Your task to perform on an android device: Go to ESPN.com Image 0: 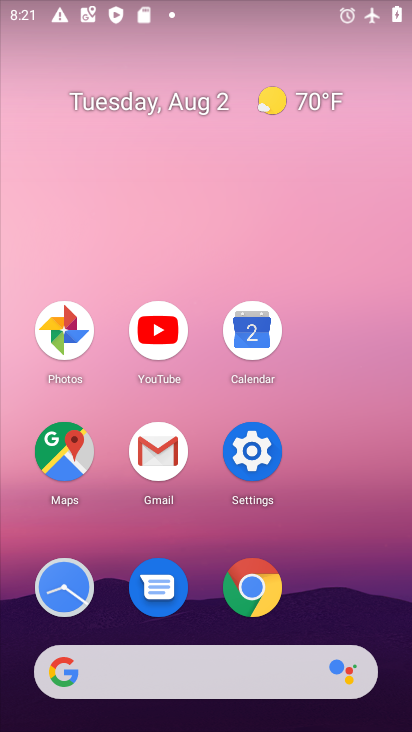
Step 0: click (248, 585)
Your task to perform on an android device: Go to ESPN.com Image 1: 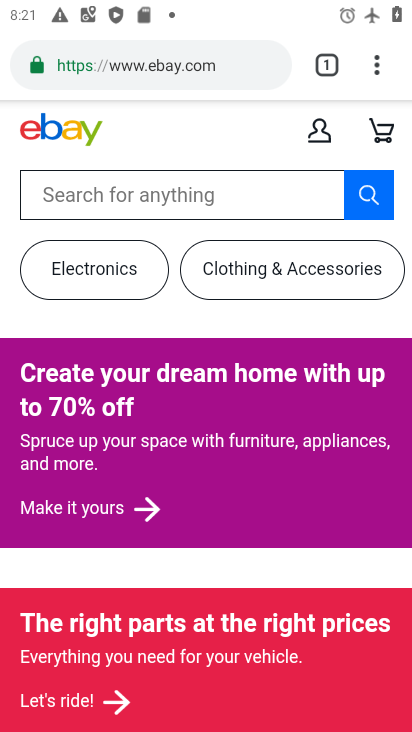
Step 1: click (373, 61)
Your task to perform on an android device: Go to ESPN.com Image 2: 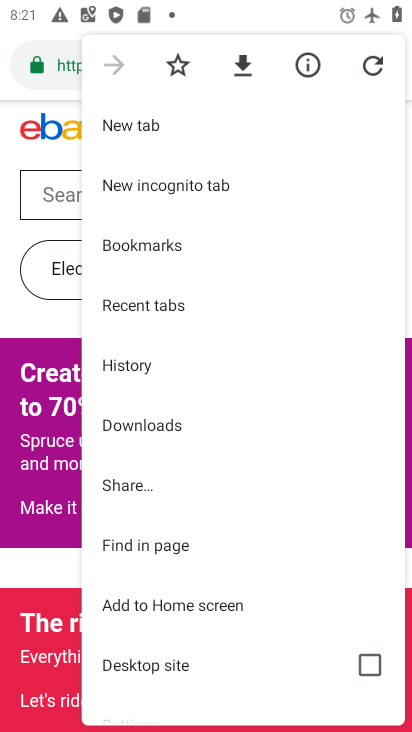
Step 2: click (134, 122)
Your task to perform on an android device: Go to ESPN.com Image 3: 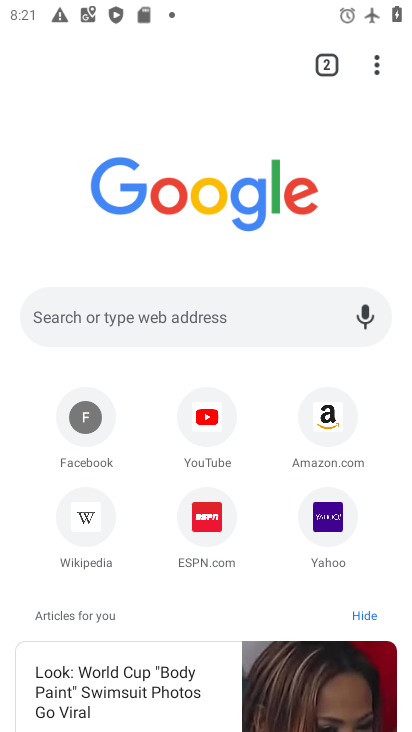
Step 3: click (209, 524)
Your task to perform on an android device: Go to ESPN.com Image 4: 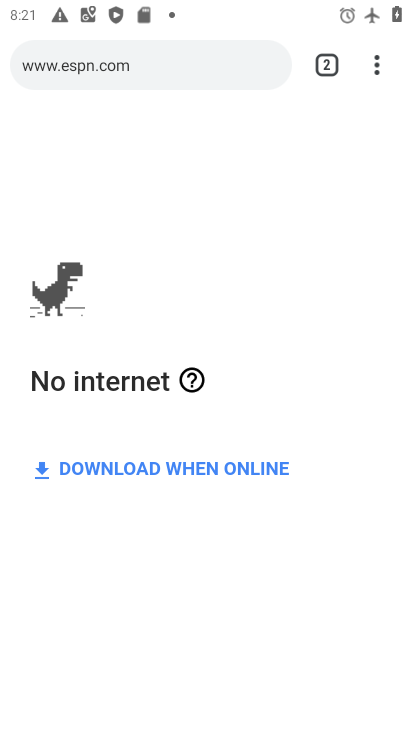
Step 4: task complete